Your task to perform on an android device: open sync settings in chrome Image 0: 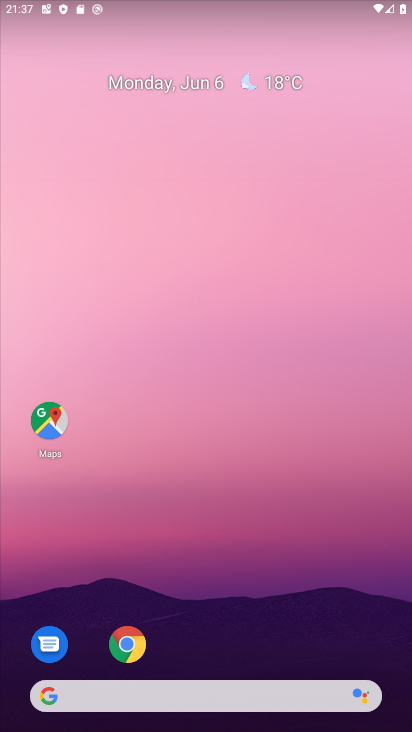
Step 0: drag from (315, 642) to (310, 117)
Your task to perform on an android device: open sync settings in chrome Image 1: 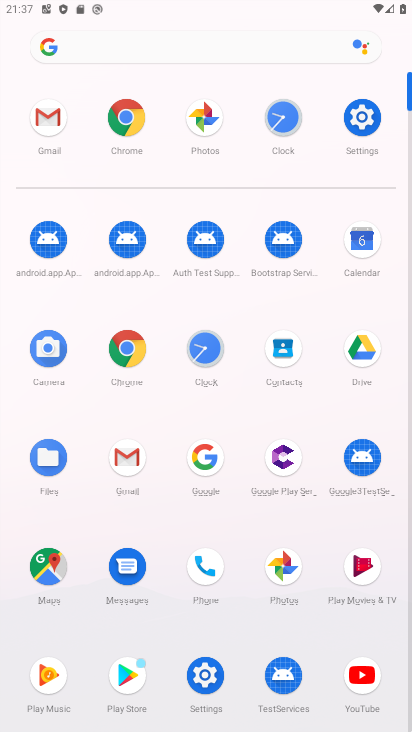
Step 1: click (115, 367)
Your task to perform on an android device: open sync settings in chrome Image 2: 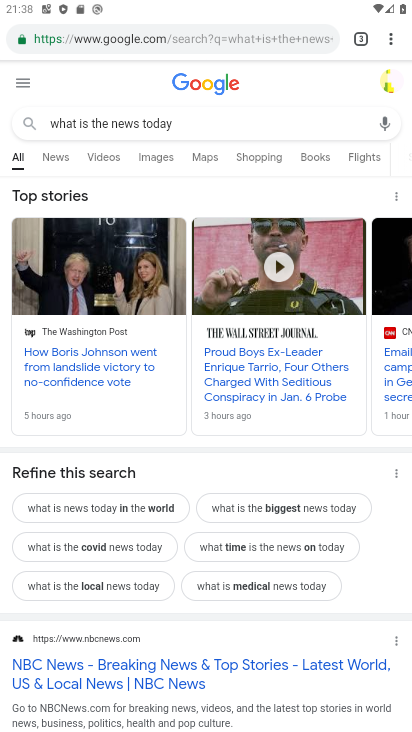
Step 2: click (388, 43)
Your task to perform on an android device: open sync settings in chrome Image 3: 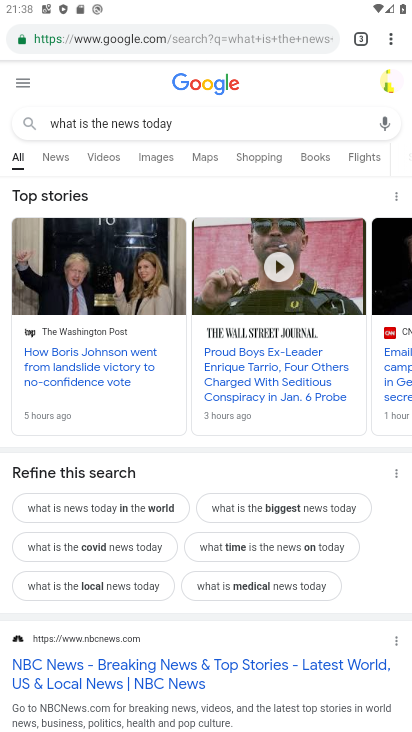
Step 3: drag from (395, 51) to (251, 436)
Your task to perform on an android device: open sync settings in chrome Image 4: 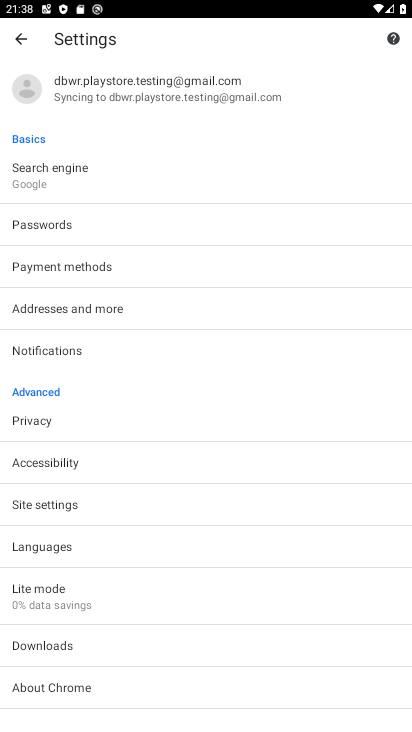
Step 4: click (106, 506)
Your task to perform on an android device: open sync settings in chrome Image 5: 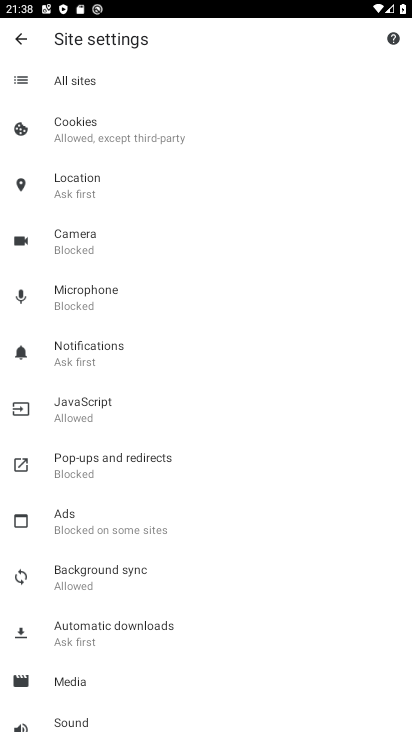
Step 5: click (154, 572)
Your task to perform on an android device: open sync settings in chrome Image 6: 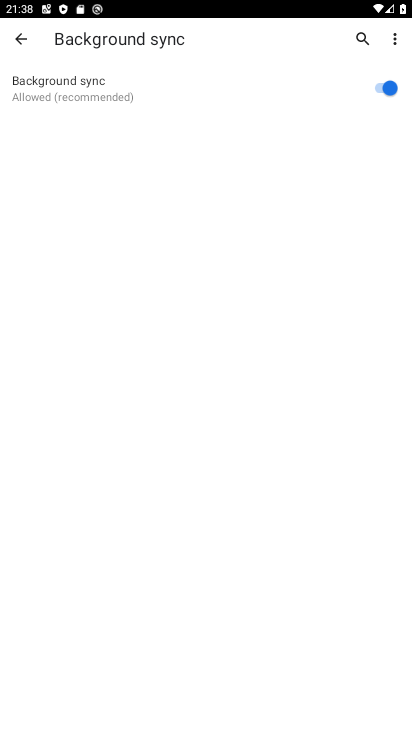
Step 6: task complete